Your task to perform on an android device: remove spam from my inbox in the gmail app Image 0: 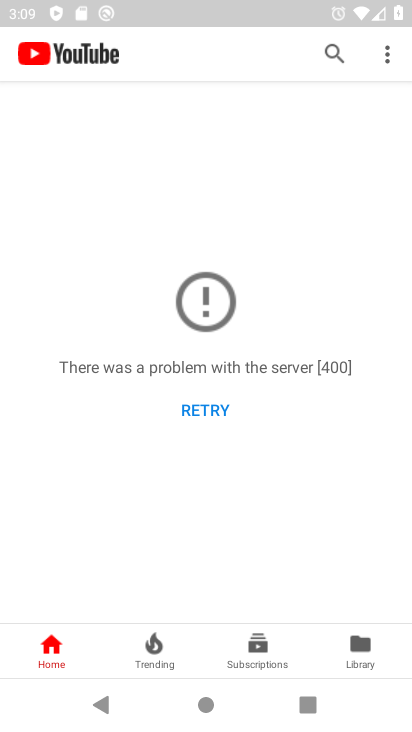
Step 0: press home button
Your task to perform on an android device: remove spam from my inbox in the gmail app Image 1: 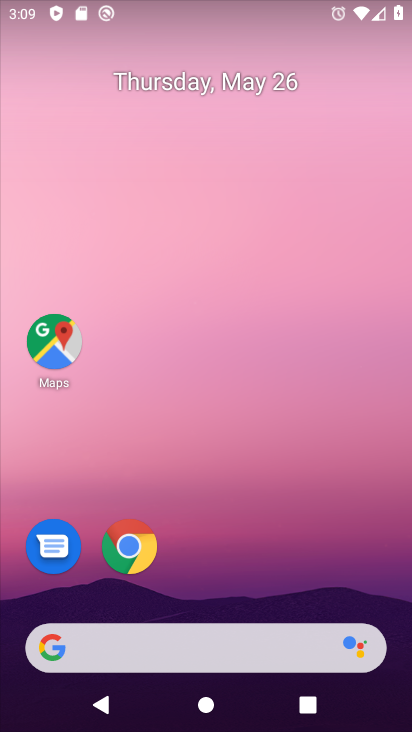
Step 1: drag from (393, 690) to (346, 312)
Your task to perform on an android device: remove spam from my inbox in the gmail app Image 2: 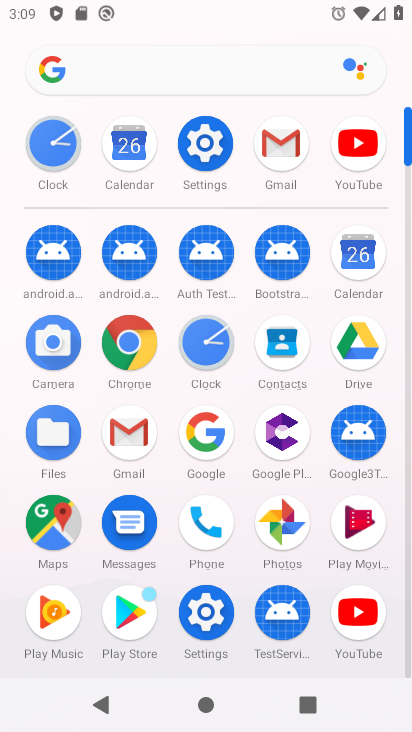
Step 2: click (117, 447)
Your task to perform on an android device: remove spam from my inbox in the gmail app Image 3: 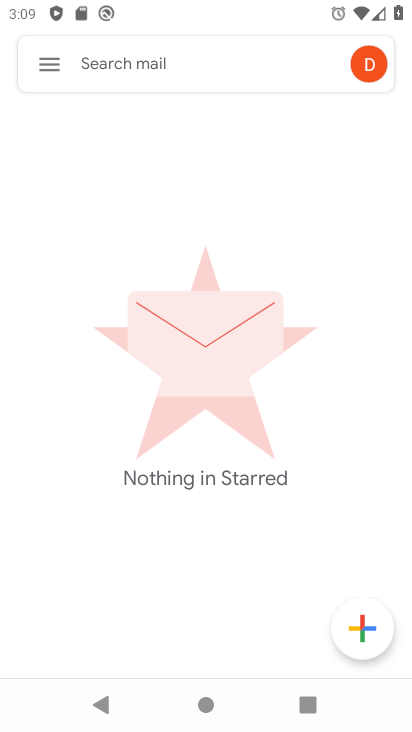
Step 3: click (47, 61)
Your task to perform on an android device: remove spam from my inbox in the gmail app Image 4: 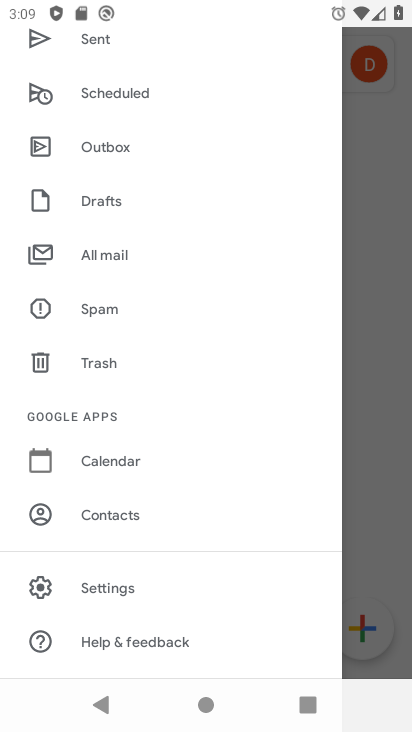
Step 4: click (93, 302)
Your task to perform on an android device: remove spam from my inbox in the gmail app Image 5: 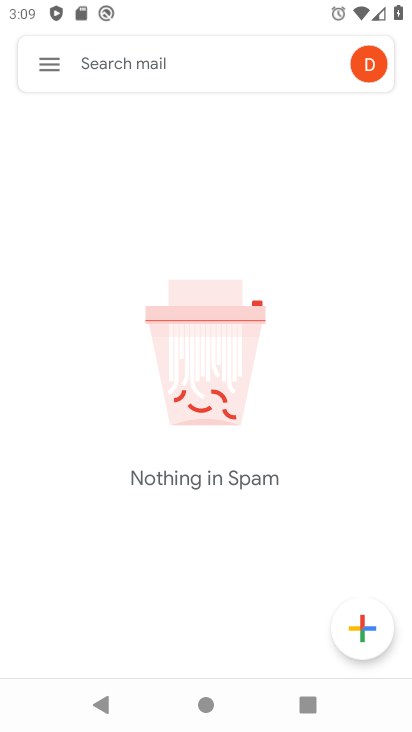
Step 5: task complete